Your task to perform on an android device: Go to settings Image 0: 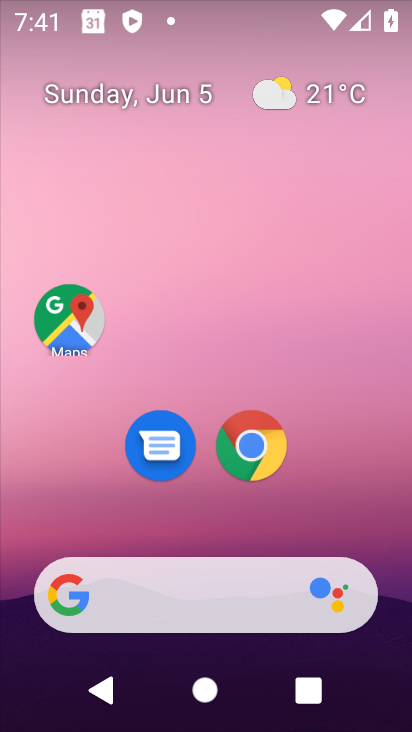
Step 0: drag from (347, 517) to (350, 67)
Your task to perform on an android device: Go to settings Image 1: 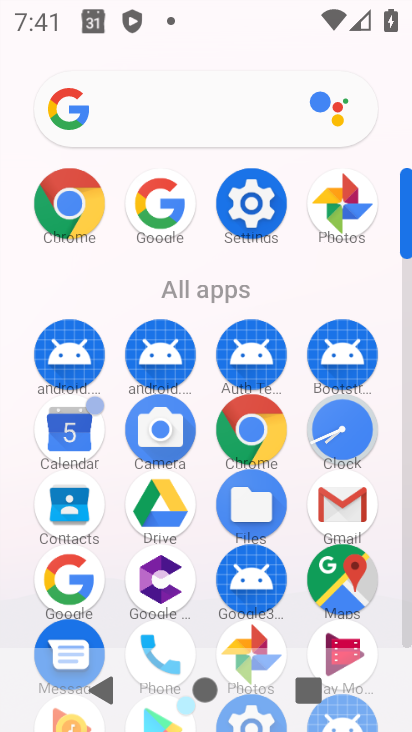
Step 1: click (249, 208)
Your task to perform on an android device: Go to settings Image 2: 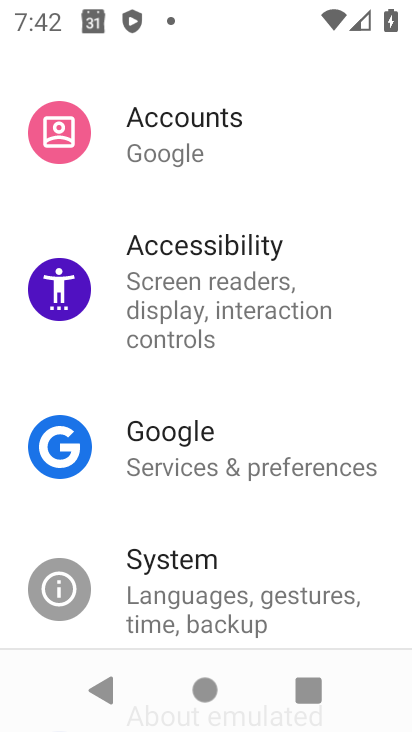
Step 2: task complete